Your task to perform on an android device: add a contact Image 0: 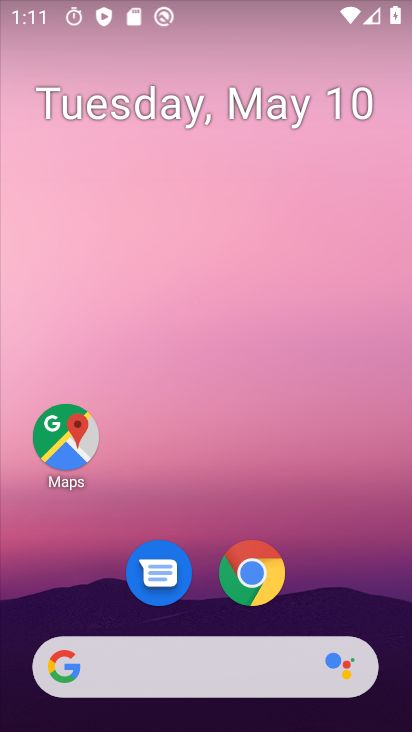
Step 0: drag from (327, 480) to (287, 106)
Your task to perform on an android device: add a contact Image 1: 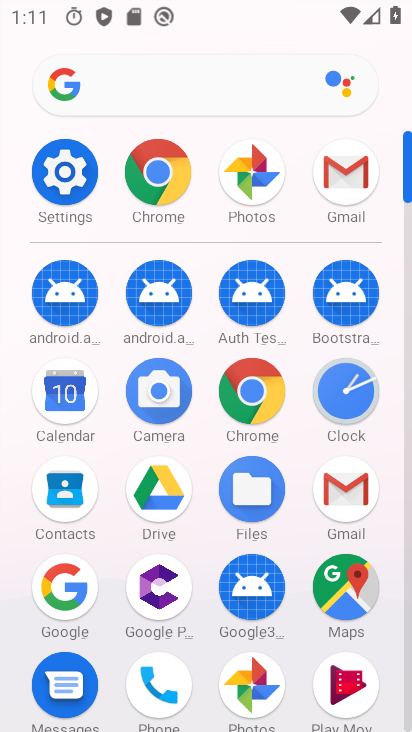
Step 1: click (59, 474)
Your task to perform on an android device: add a contact Image 2: 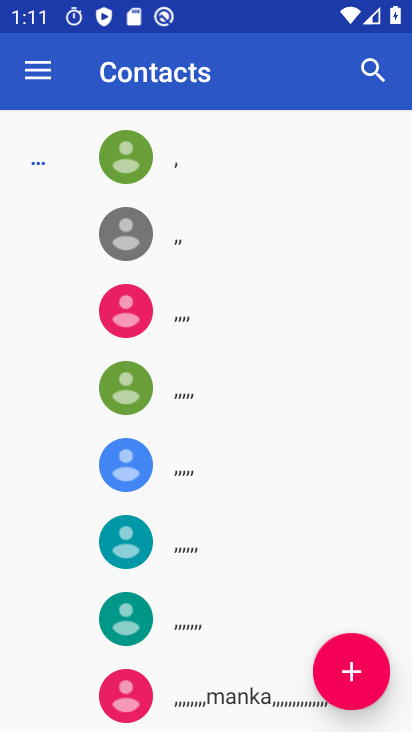
Step 2: click (348, 677)
Your task to perform on an android device: add a contact Image 3: 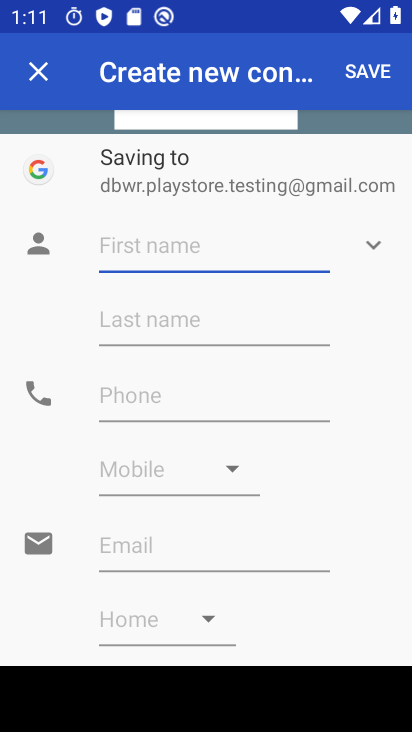
Step 3: type "yhh"
Your task to perform on an android device: add a contact Image 4: 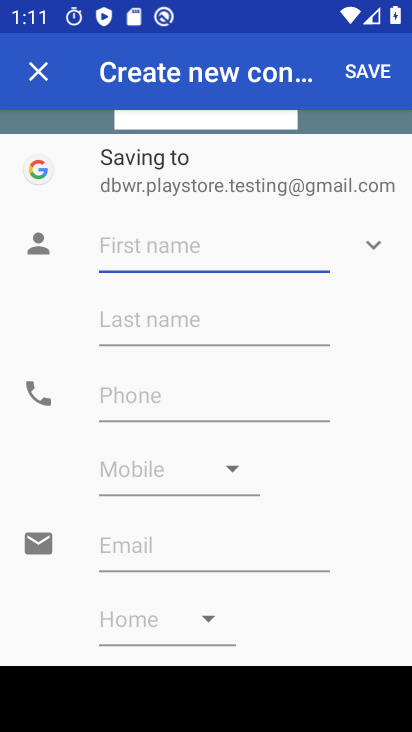
Step 4: click (201, 396)
Your task to perform on an android device: add a contact Image 5: 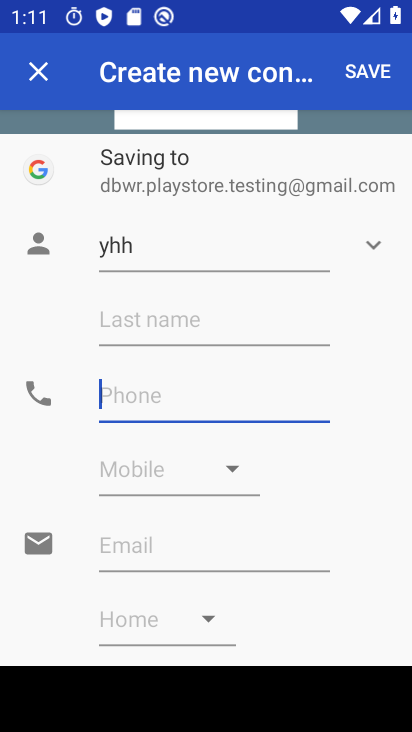
Step 5: type "66777777"
Your task to perform on an android device: add a contact Image 6: 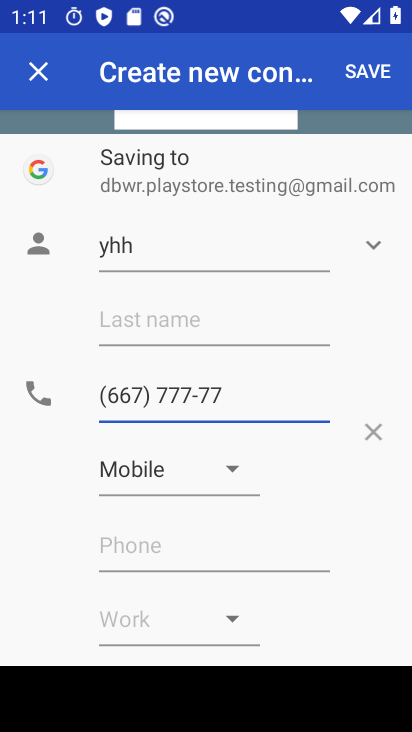
Step 6: click (373, 68)
Your task to perform on an android device: add a contact Image 7: 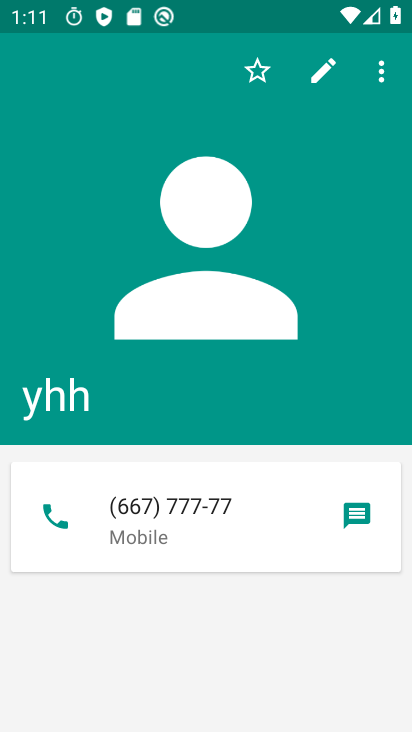
Step 7: task complete